Your task to perform on an android device: Open calendar and show me the second week of next month Image 0: 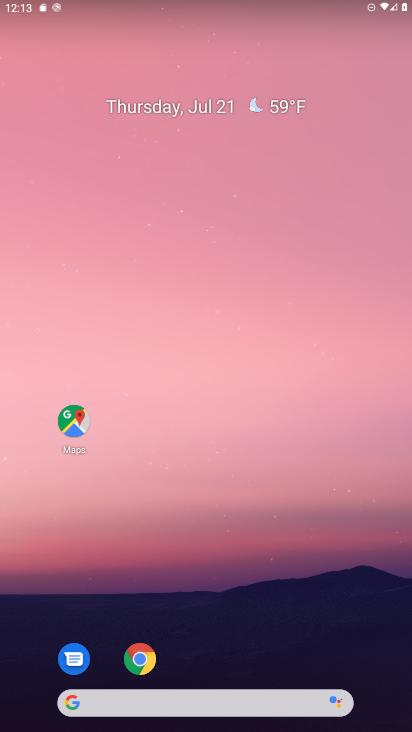
Step 0: drag from (36, 497) to (232, 107)
Your task to perform on an android device: Open calendar and show me the second week of next month Image 1: 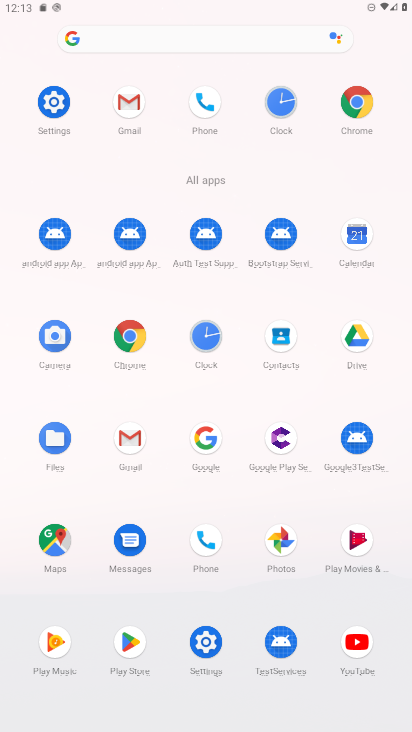
Step 1: click (368, 251)
Your task to perform on an android device: Open calendar and show me the second week of next month Image 2: 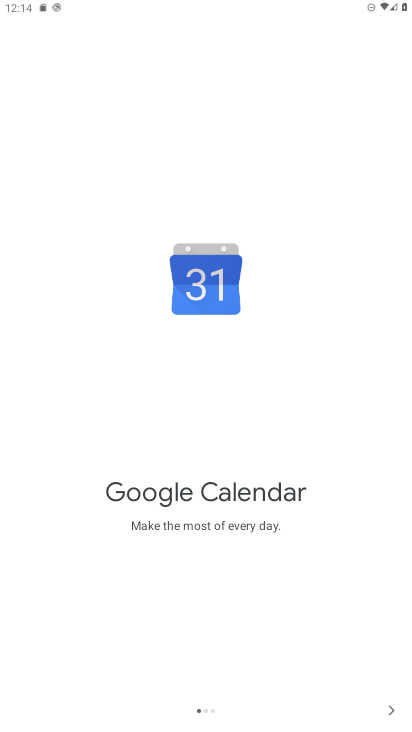
Step 2: click (384, 703)
Your task to perform on an android device: Open calendar and show me the second week of next month Image 3: 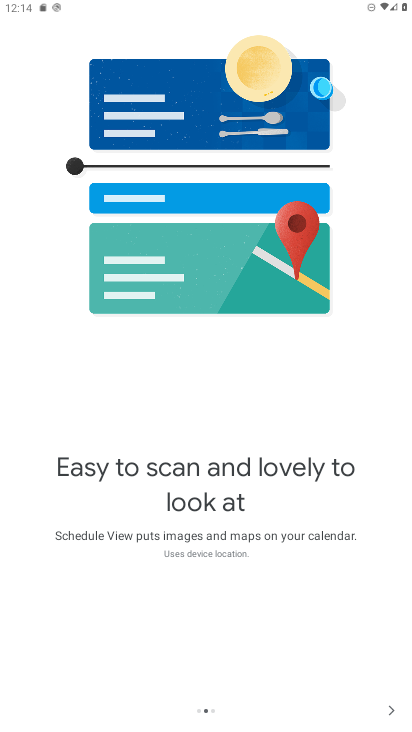
Step 3: click (386, 705)
Your task to perform on an android device: Open calendar and show me the second week of next month Image 4: 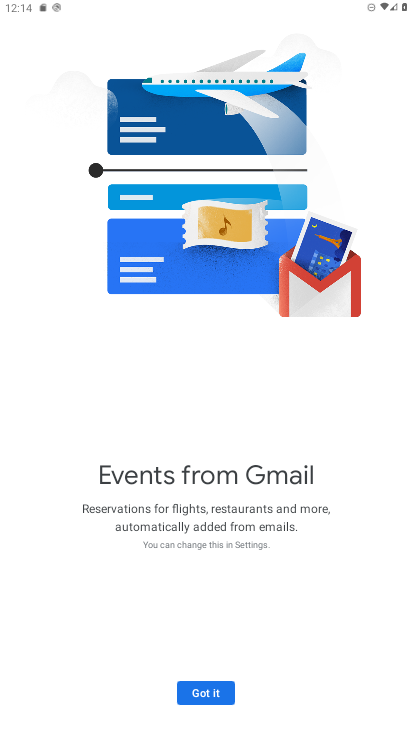
Step 4: click (196, 699)
Your task to perform on an android device: Open calendar and show me the second week of next month Image 5: 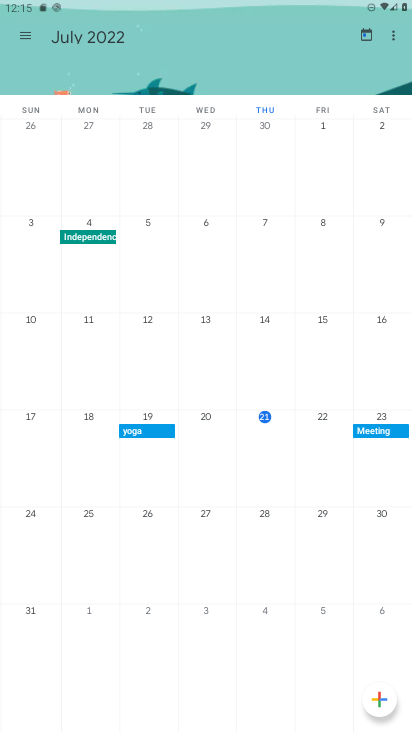
Step 5: click (196, 699)
Your task to perform on an android device: Open calendar and show me the second week of next month Image 6: 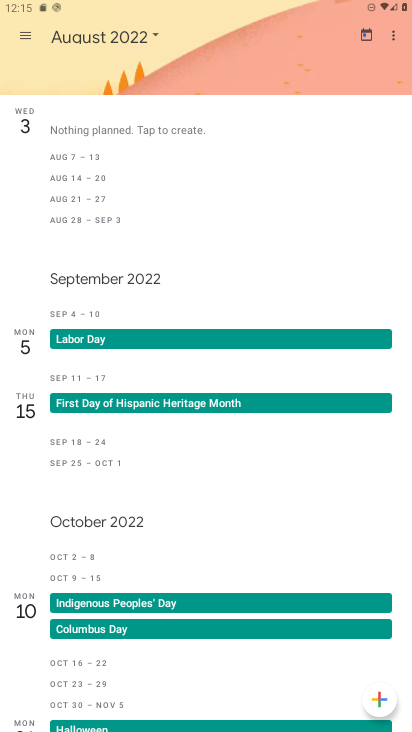
Step 6: click (135, 41)
Your task to perform on an android device: Open calendar and show me the second week of next month Image 7: 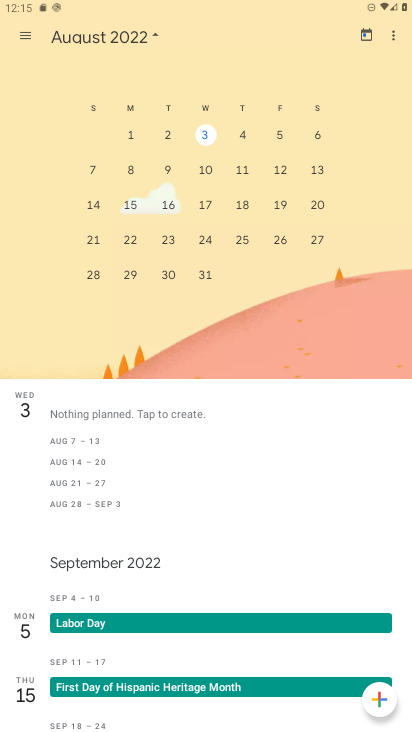
Step 7: click (134, 165)
Your task to perform on an android device: Open calendar and show me the second week of next month Image 8: 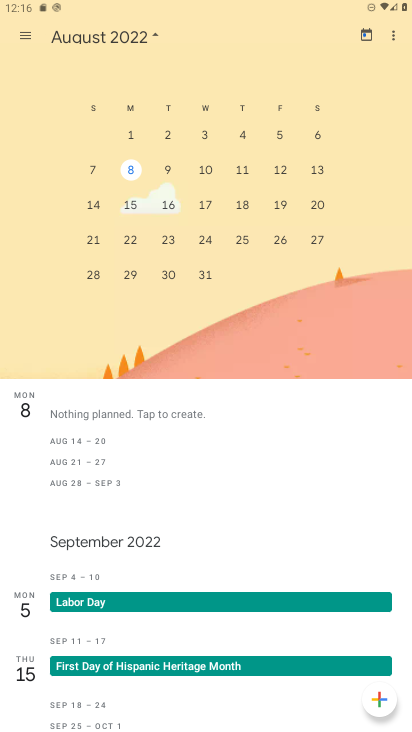
Step 8: task complete